Your task to perform on an android device: turn on wifi Image 0: 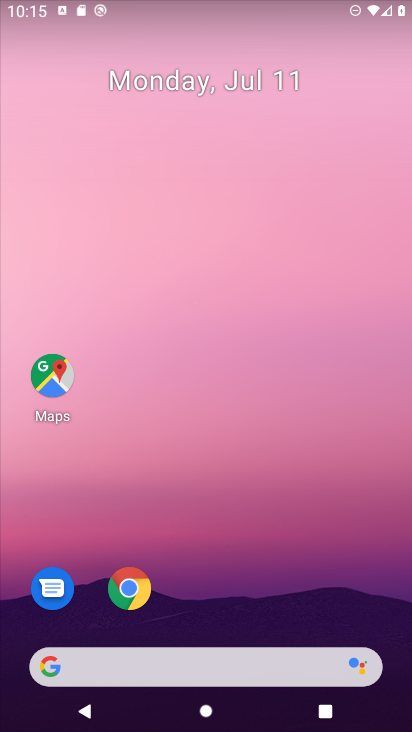
Step 0: drag from (399, 651) to (77, 182)
Your task to perform on an android device: turn on wifi Image 1: 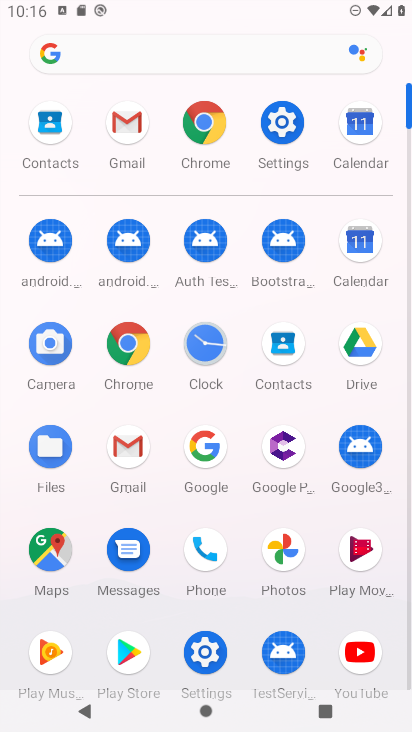
Step 1: task complete